Your task to perform on an android device: Open Android settings Image 0: 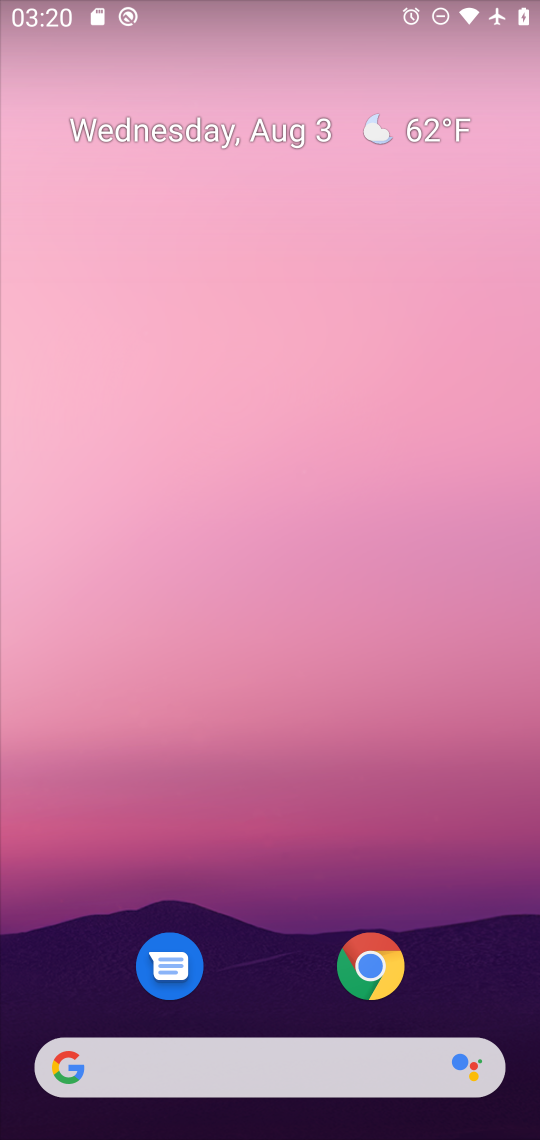
Step 0: drag from (240, 980) to (284, 301)
Your task to perform on an android device: Open Android settings Image 1: 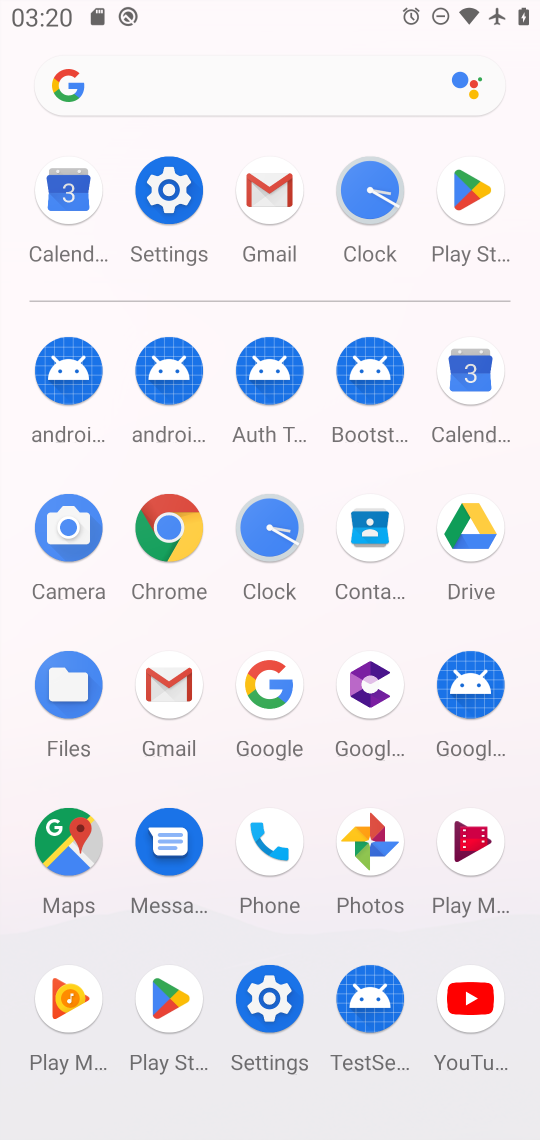
Step 1: click (170, 203)
Your task to perform on an android device: Open Android settings Image 2: 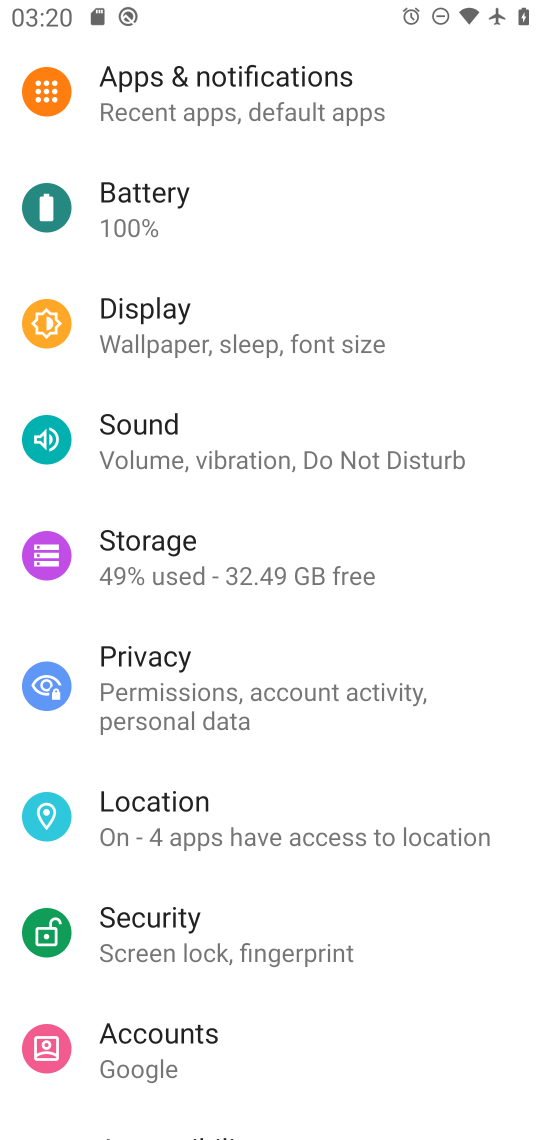
Step 2: task complete